Your task to perform on an android device: Is it going to rain today? Image 0: 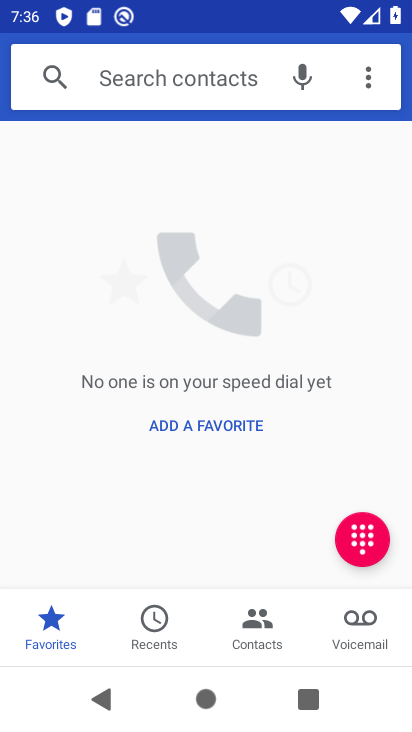
Step 0: press home button
Your task to perform on an android device: Is it going to rain today? Image 1: 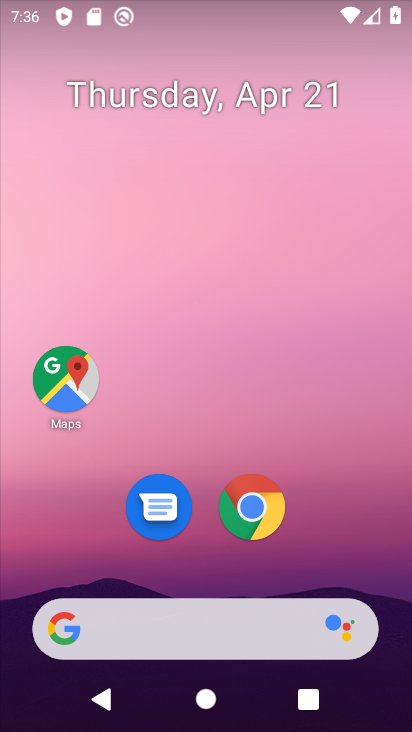
Step 1: click (212, 631)
Your task to perform on an android device: Is it going to rain today? Image 2: 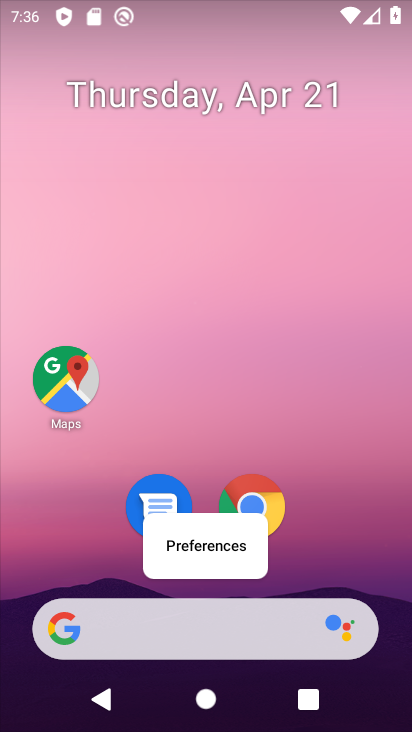
Step 2: click (250, 629)
Your task to perform on an android device: Is it going to rain today? Image 3: 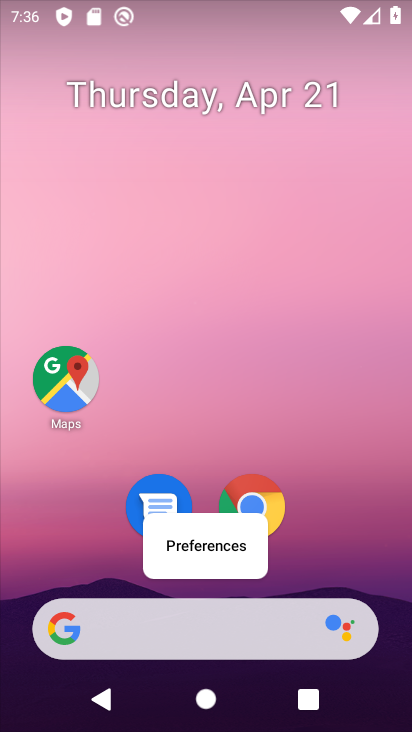
Step 3: click (232, 624)
Your task to perform on an android device: Is it going to rain today? Image 4: 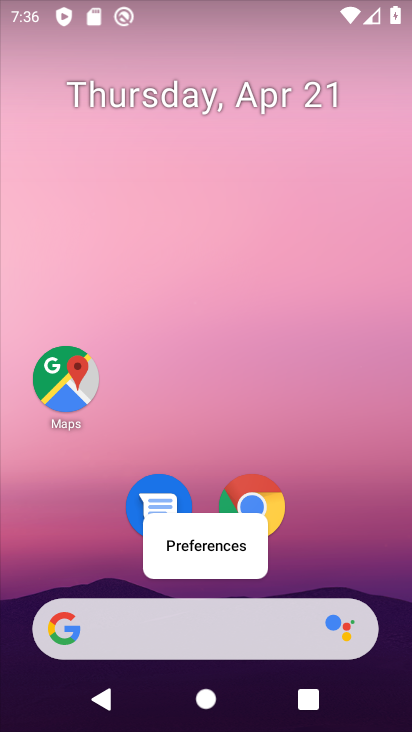
Step 4: click (206, 624)
Your task to perform on an android device: Is it going to rain today? Image 5: 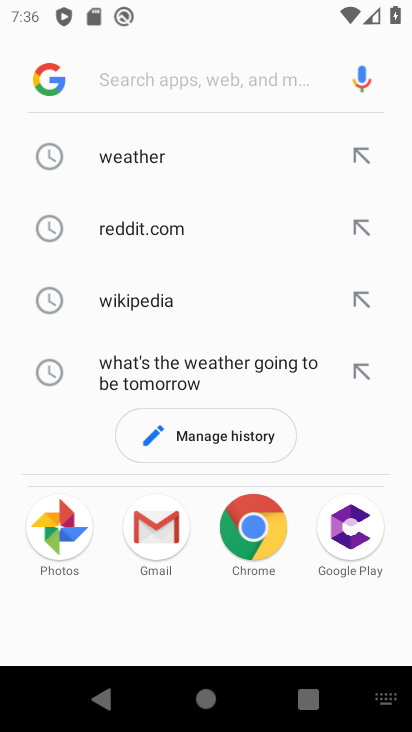
Step 5: click (149, 157)
Your task to perform on an android device: Is it going to rain today? Image 6: 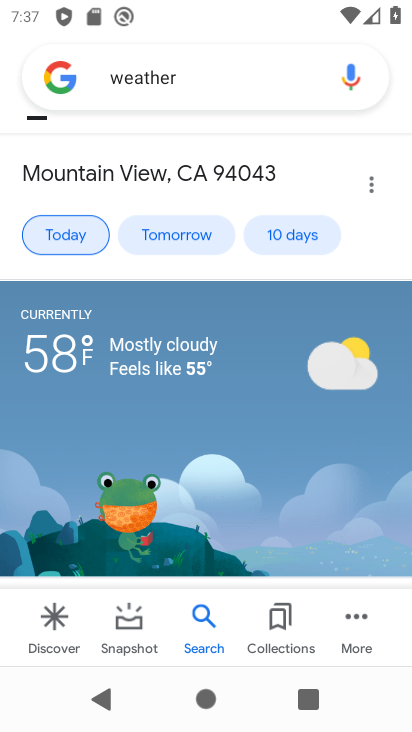
Step 6: task complete